Your task to perform on an android device: Open Chrome and go to settings Image 0: 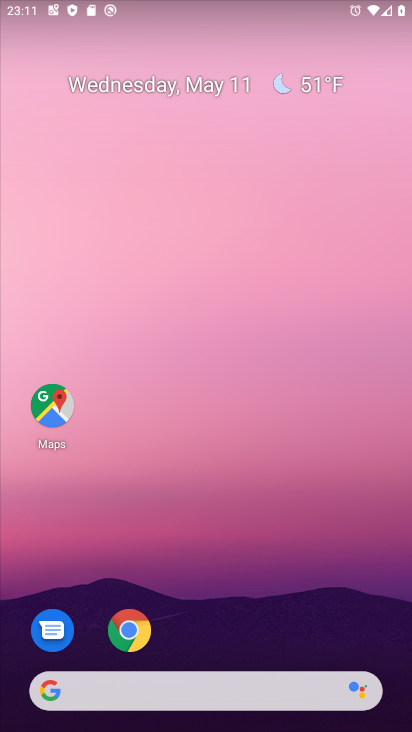
Step 0: click (130, 631)
Your task to perform on an android device: Open Chrome and go to settings Image 1: 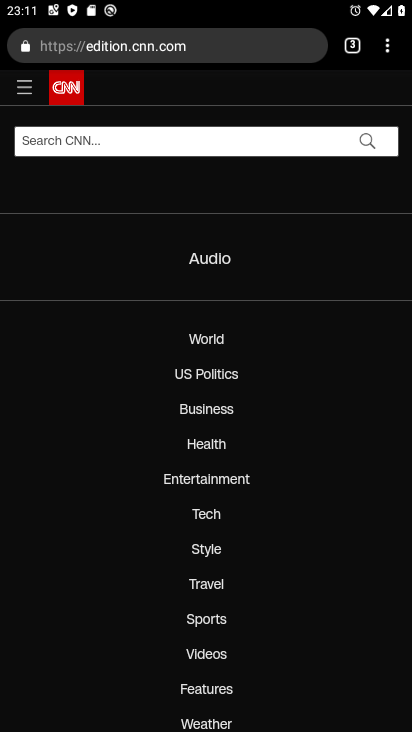
Step 1: click (388, 53)
Your task to perform on an android device: Open Chrome and go to settings Image 2: 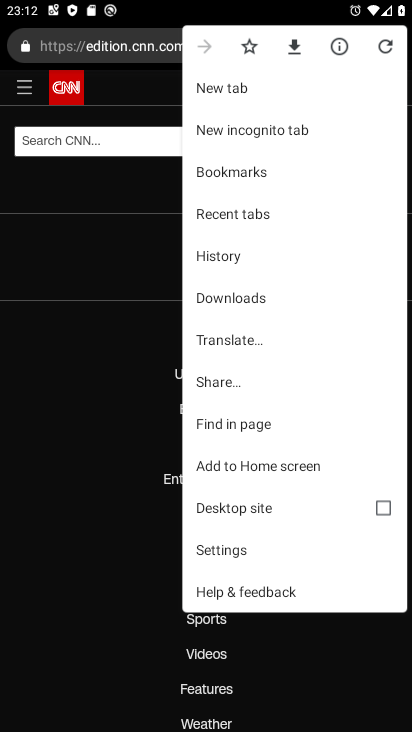
Step 2: click (229, 554)
Your task to perform on an android device: Open Chrome and go to settings Image 3: 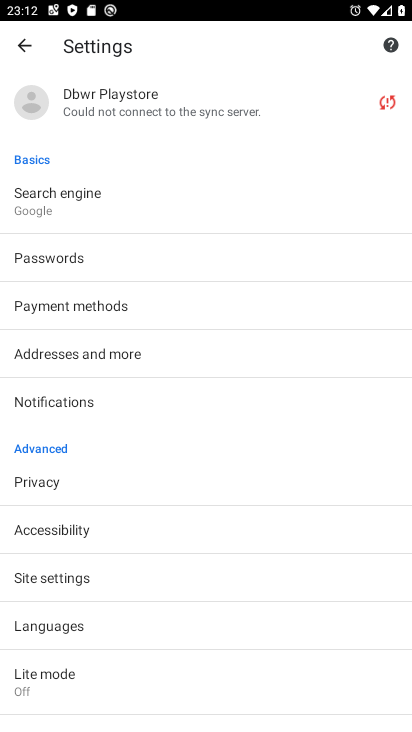
Step 3: task complete